Your task to perform on an android device: open a new tab in the chrome app Image 0: 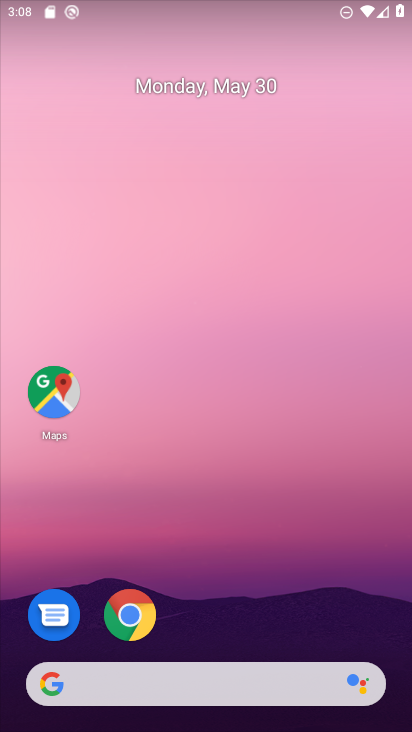
Step 0: click (143, 615)
Your task to perform on an android device: open a new tab in the chrome app Image 1: 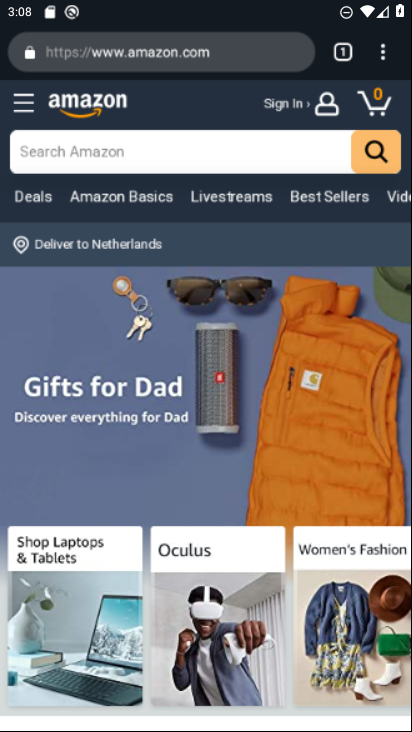
Step 1: click (143, 615)
Your task to perform on an android device: open a new tab in the chrome app Image 2: 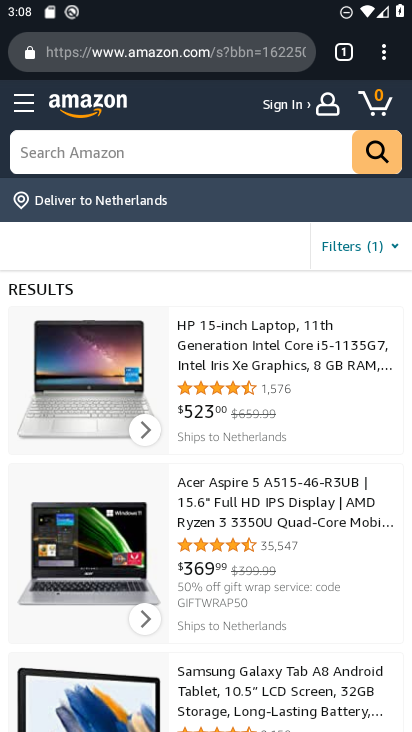
Step 2: click (382, 50)
Your task to perform on an android device: open a new tab in the chrome app Image 3: 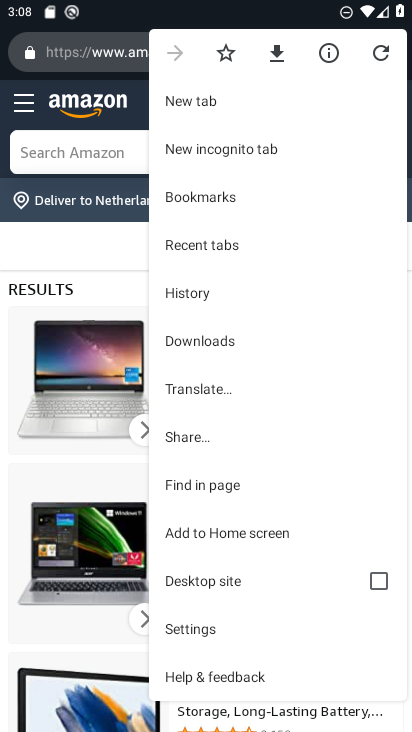
Step 3: click (220, 104)
Your task to perform on an android device: open a new tab in the chrome app Image 4: 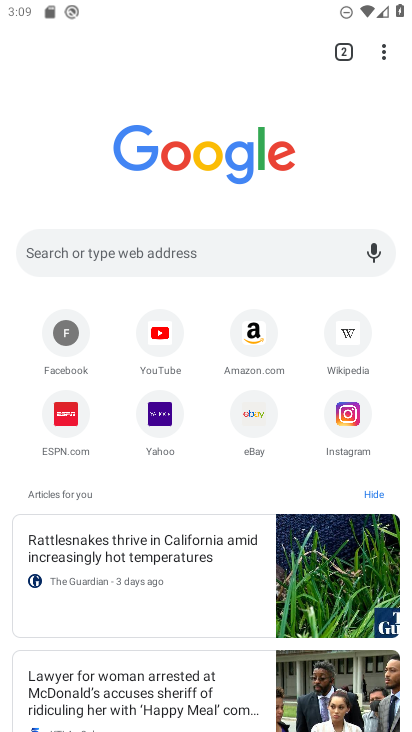
Step 4: task complete